Your task to perform on an android device: Open Android settings Image 0: 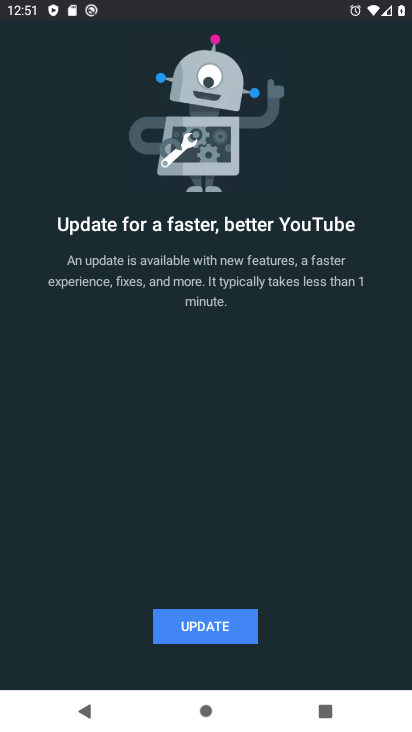
Step 0: press home button
Your task to perform on an android device: Open Android settings Image 1: 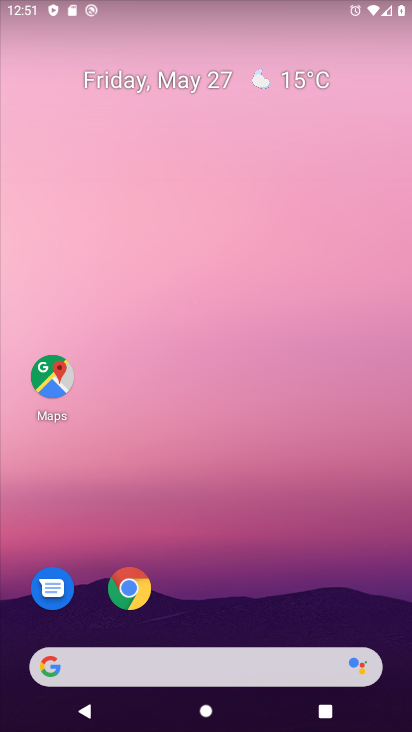
Step 1: click (363, 609)
Your task to perform on an android device: Open Android settings Image 2: 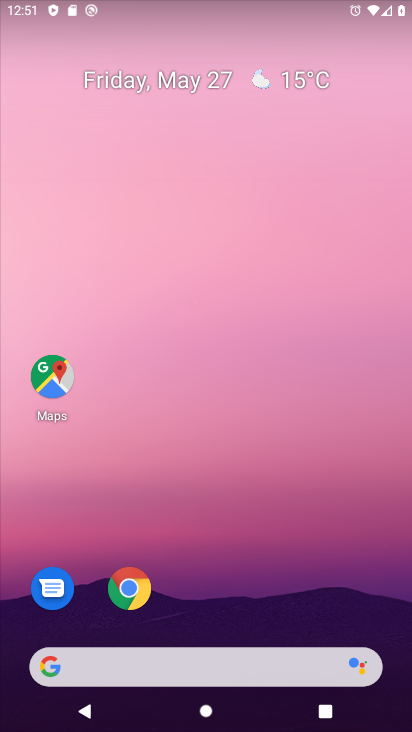
Step 2: click (305, 162)
Your task to perform on an android device: Open Android settings Image 3: 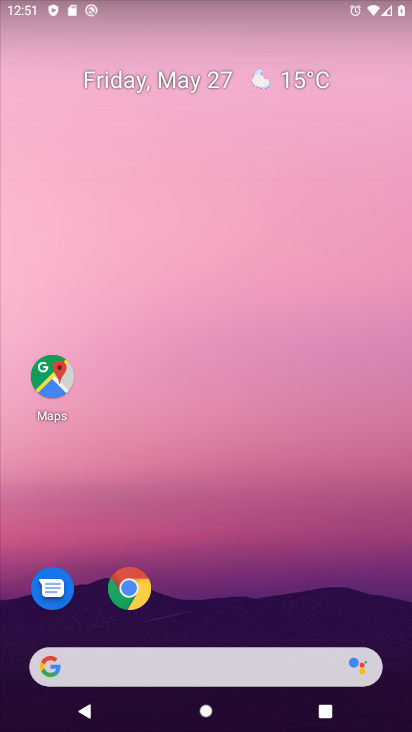
Step 3: drag from (362, 606) to (324, 88)
Your task to perform on an android device: Open Android settings Image 4: 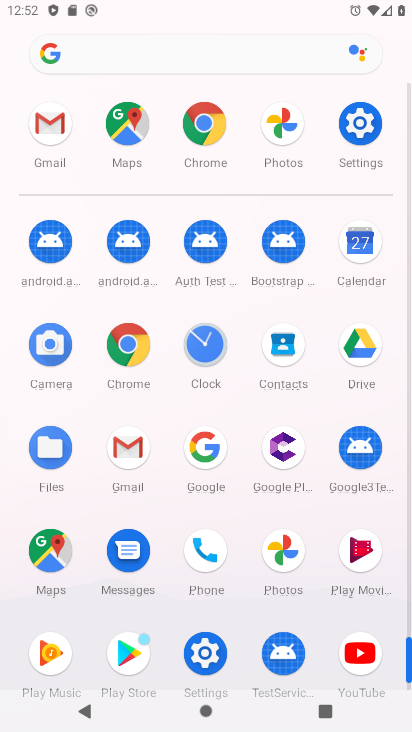
Step 4: click (205, 652)
Your task to perform on an android device: Open Android settings Image 5: 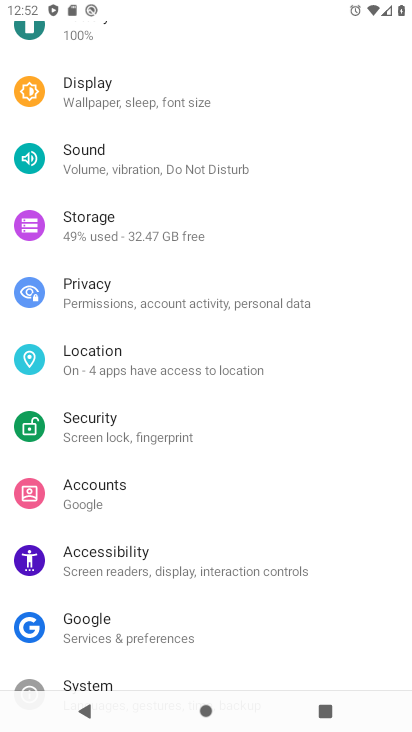
Step 5: drag from (360, 583) to (319, 172)
Your task to perform on an android device: Open Android settings Image 6: 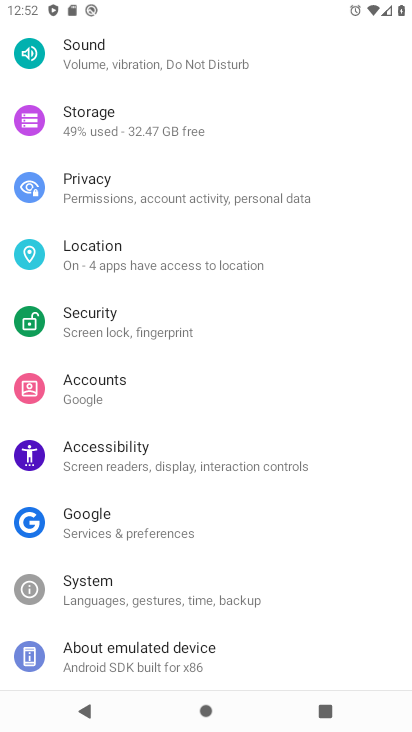
Step 6: click (93, 643)
Your task to perform on an android device: Open Android settings Image 7: 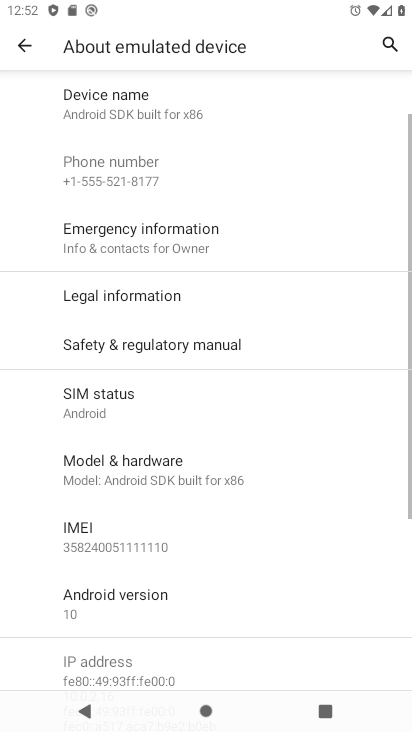
Step 7: task complete